Your task to perform on an android device: open app "Expedia: Hotels, Flights & Car" Image 0: 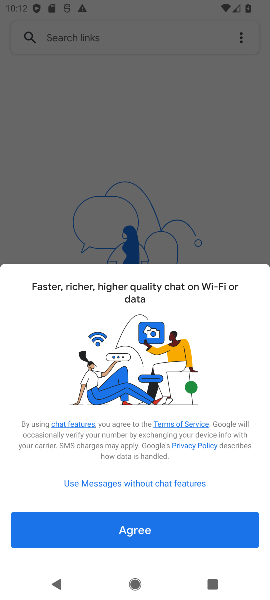
Step 0: press home button
Your task to perform on an android device: open app "Expedia: Hotels, Flights & Car" Image 1: 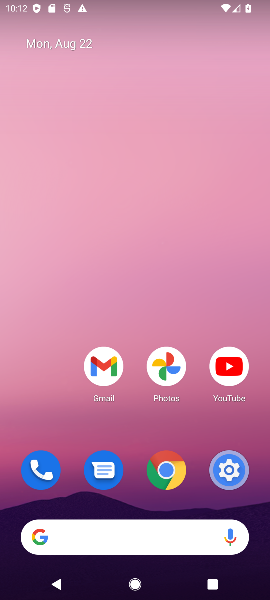
Step 1: drag from (132, 568) to (249, 113)
Your task to perform on an android device: open app "Expedia: Hotels, Flights & Car" Image 2: 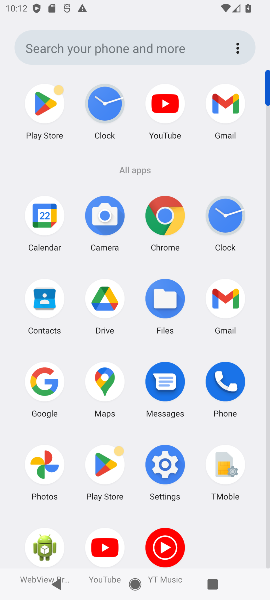
Step 2: click (96, 467)
Your task to perform on an android device: open app "Expedia: Hotels, Flights & Car" Image 3: 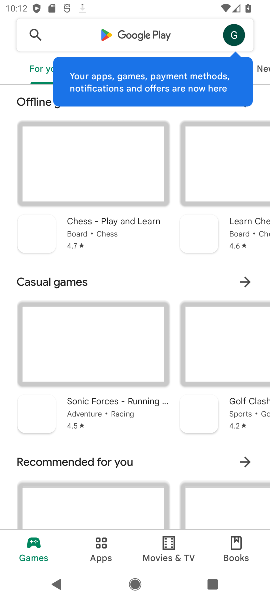
Step 3: click (108, 37)
Your task to perform on an android device: open app "Expedia: Hotels, Flights & Car" Image 4: 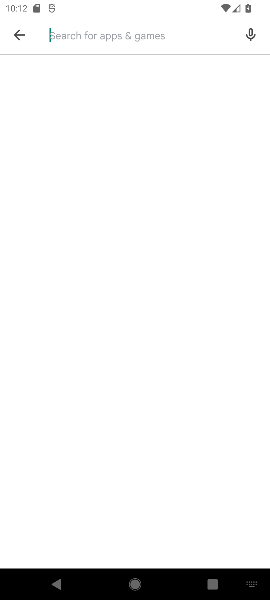
Step 4: type "Expedia: Hotels, Flights & Car"
Your task to perform on an android device: open app "Expedia: Hotels, Flights & Car" Image 5: 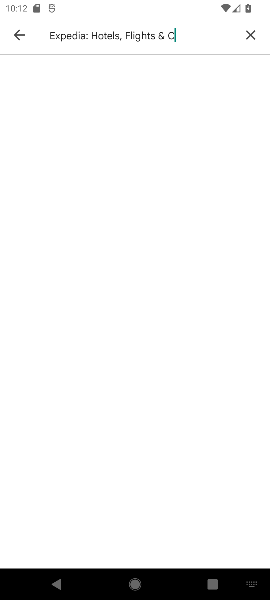
Step 5: press enter
Your task to perform on an android device: open app "Expedia: Hotels, Flights & Car" Image 6: 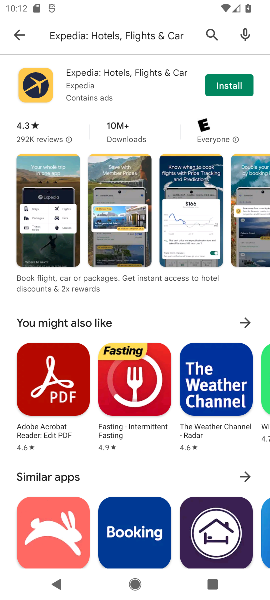
Step 6: task complete